Your task to perform on an android device: make emails show in primary in the gmail app Image 0: 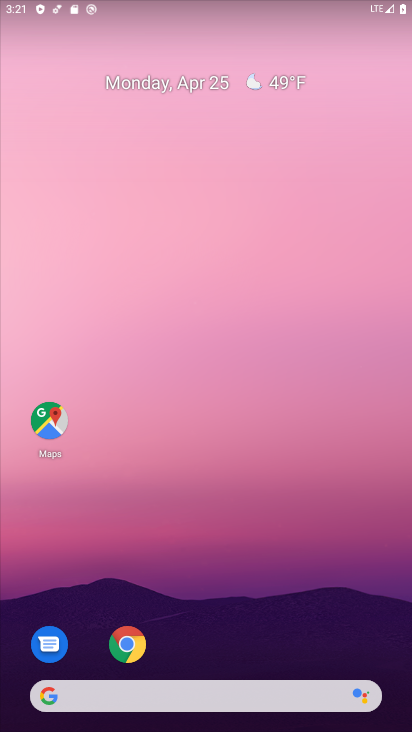
Step 0: drag from (244, 655) to (259, 255)
Your task to perform on an android device: make emails show in primary in the gmail app Image 1: 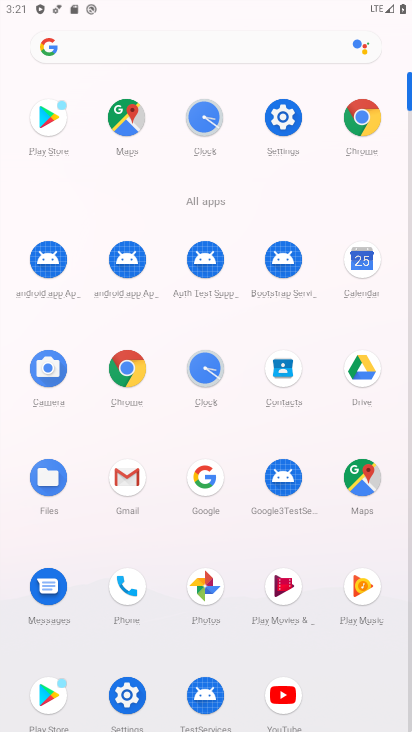
Step 1: click (136, 473)
Your task to perform on an android device: make emails show in primary in the gmail app Image 2: 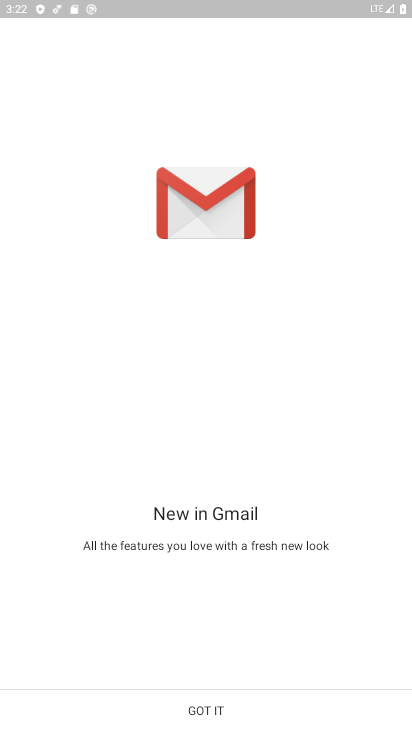
Step 2: click (214, 712)
Your task to perform on an android device: make emails show in primary in the gmail app Image 3: 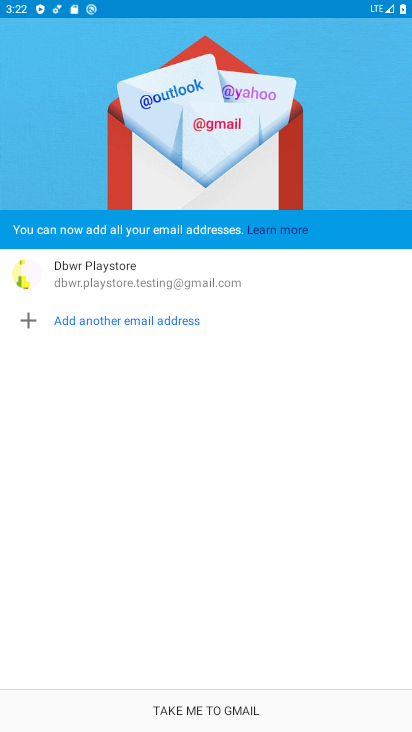
Step 3: click (259, 706)
Your task to perform on an android device: make emails show in primary in the gmail app Image 4: 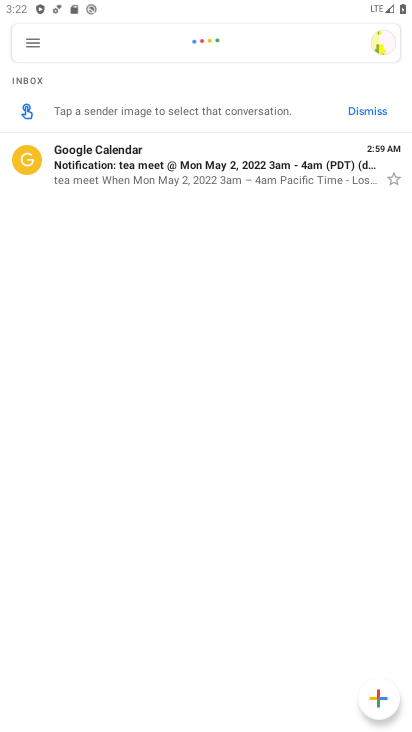
Step 4: click (36, 44)
Your task to perform on an android device: make emails show in primary in the gmail app Image 5: 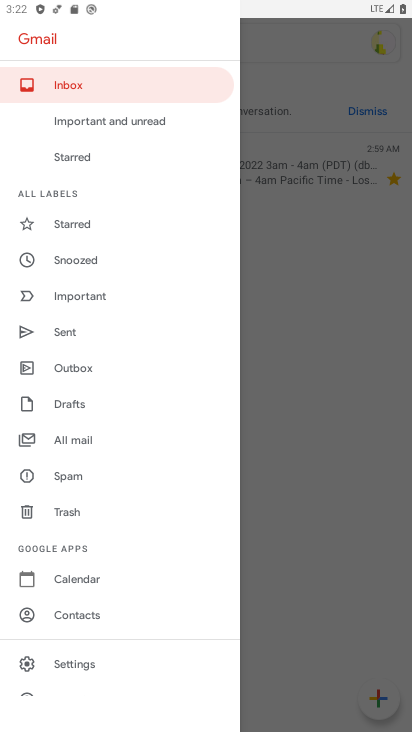
Step 5: click (89, 657)
Your task to perform on an android device: make emails show in primary in the gmail app Image 6: 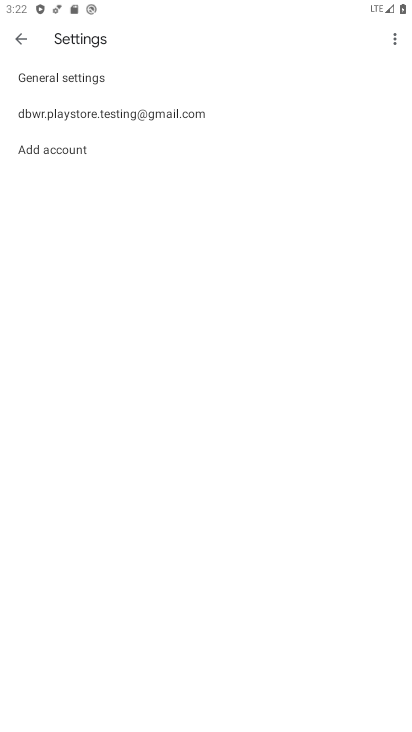
Step 6: click (78, 122)
Your task to perform on an android device: make emails show in primary in the gmail app Image 7: 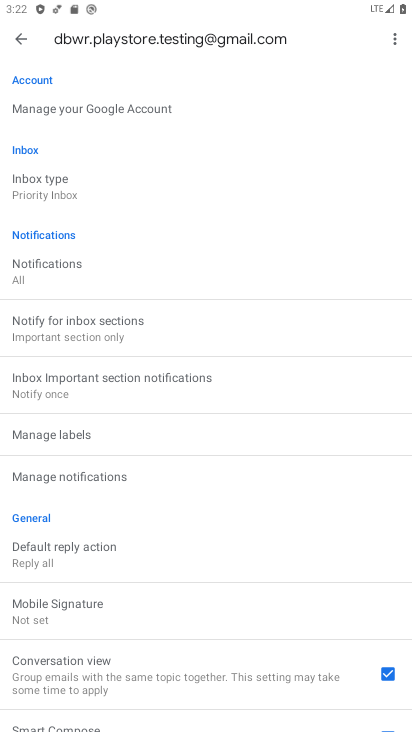
Step 7: click (107, 284)
Your task to perform on an android device: make emails show in primary in the gmail app Image 8: 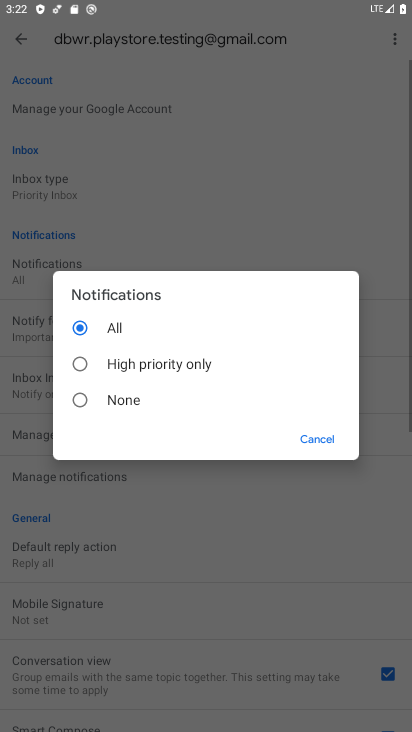
Step 8: click (163, 327)
Your task to perform on an android device: make emails show in primary in the gmail app Image 9: 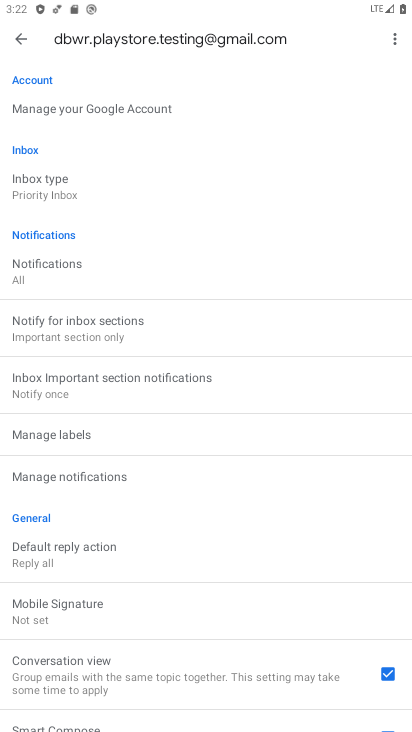
Step 9: click (131, 475)
Your task to perform on an android device: make emails show in primary in the gmail app Image 10: 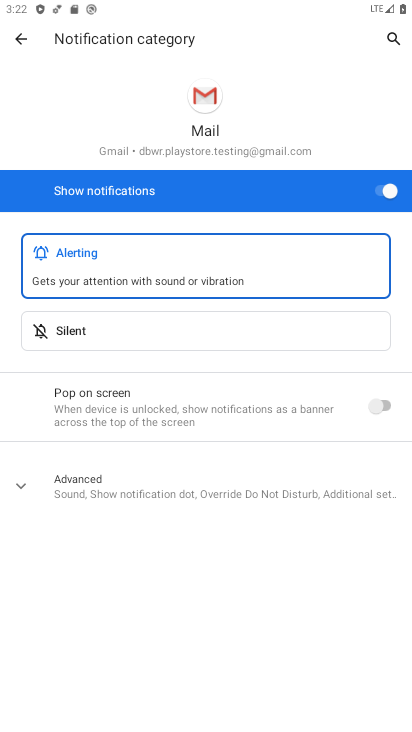
Step 10: task complete